Your task to perform on an android device: Open settings on Google Maps Image 0: 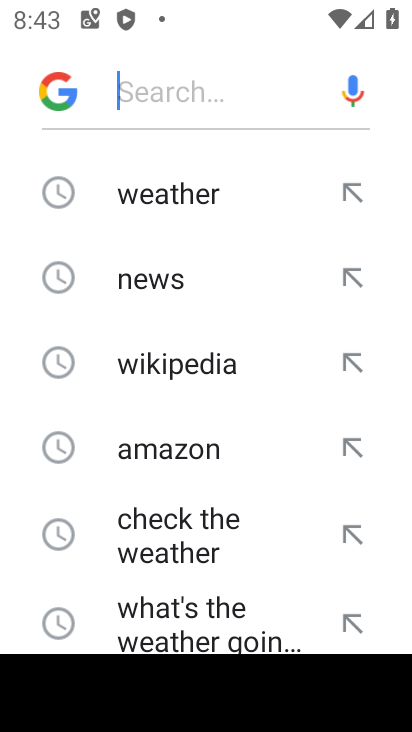
Step 0: press home button
Your task to perform on an android device: Open settings on Google Maps Image 1: 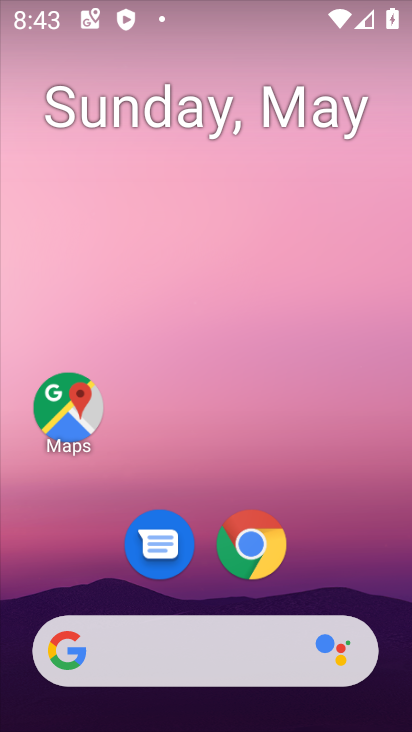
Step 1: drag from (340, 589) to (412, 330)
Your task to perform on an android device: Open settings on Google Maps Image 2: 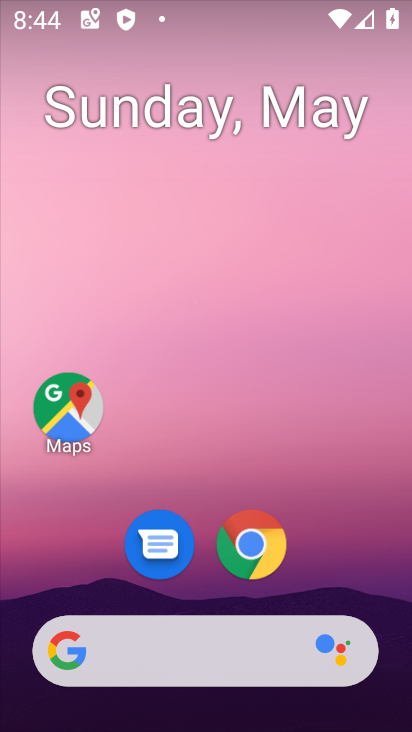
Step 2: drag from (346, 506) to (318, 51)
Your task to perform on an android device: Open settings on Google Maps Image 3: 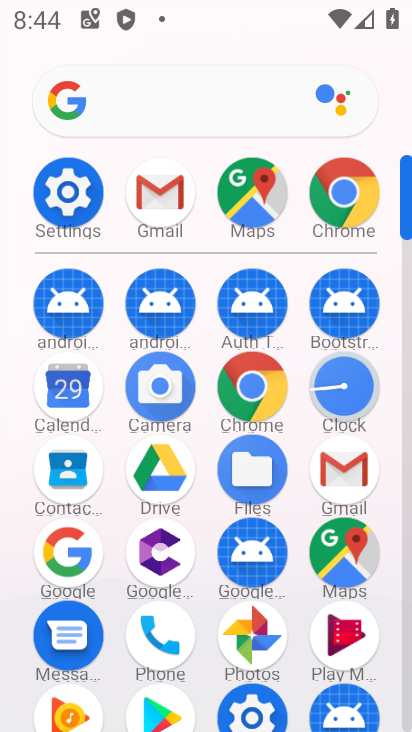
Step 3: click (256, 198)
Your task to perform on an android device: Open settings on Google Maps Image 4: 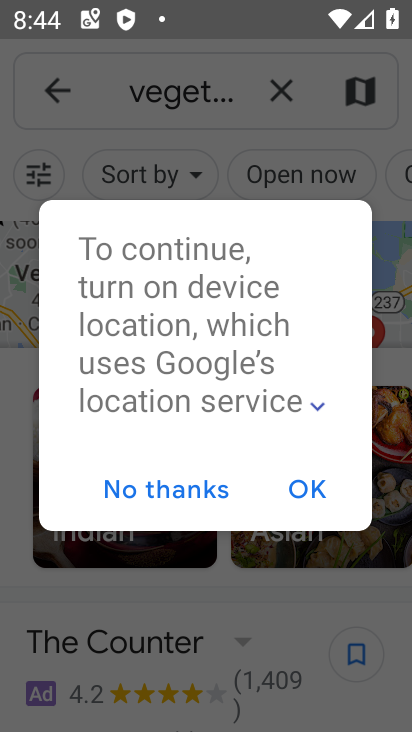
Step 4: click (51, 94)
Your task to perform on an android device: Open settings on Google Maps Image 5: 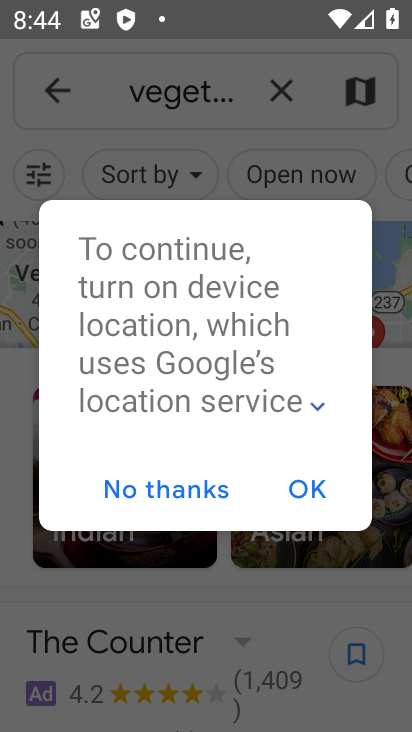
Step 5: click (209, 526)
Your task to perform on an android device: Open settings on Google Maps Image 6: 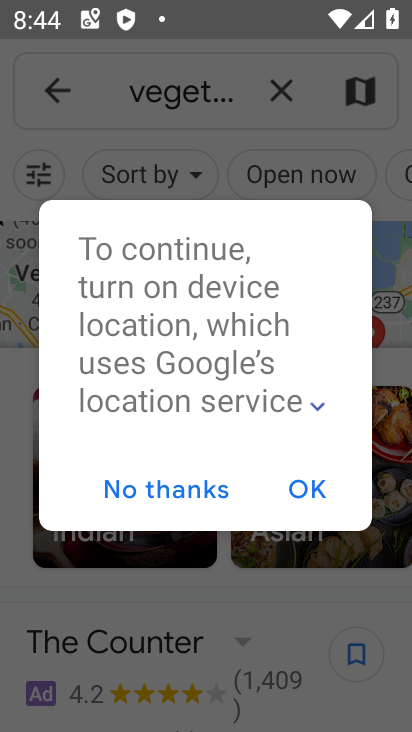
Step 6: click (190, 494)
Your task to perform on an android device: Open settings on Google Maps Image 7: 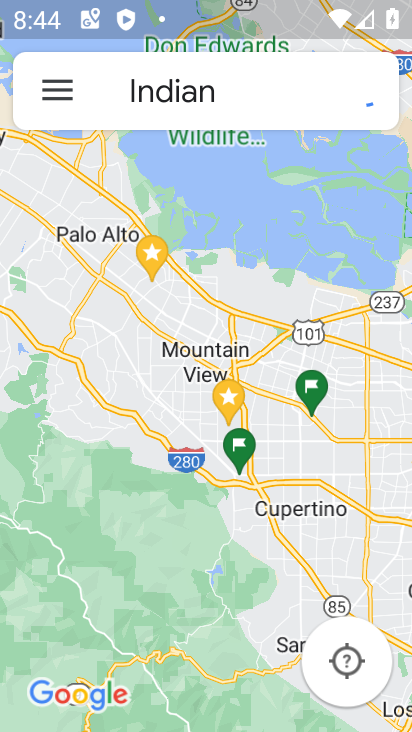
Step 7: click (61, 100)
Your task to perform on an android device: Open settings on Google Maps Image 8: 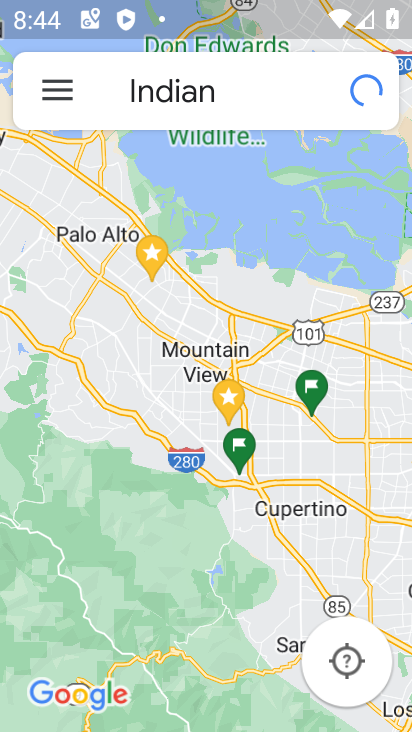
Step 8: click (61, 97)
Your task to perform on an android device: Open settings on Google Maps Image 9: 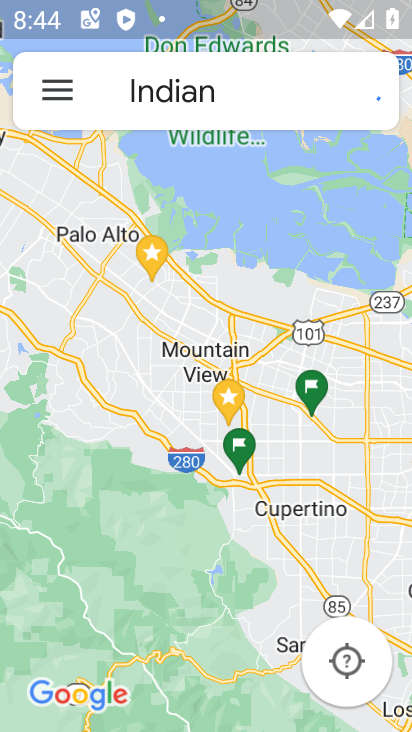
Step 9: click (52, 92)
Your task to perform on an android device: Open settings on Google Maps Image 10: 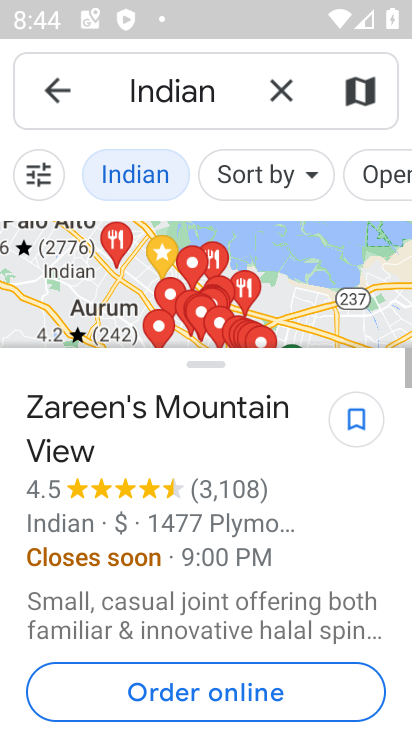
Step 10: click (70, 107)
Your task to perform on an android device: Open settings on Google Maps Image 11: 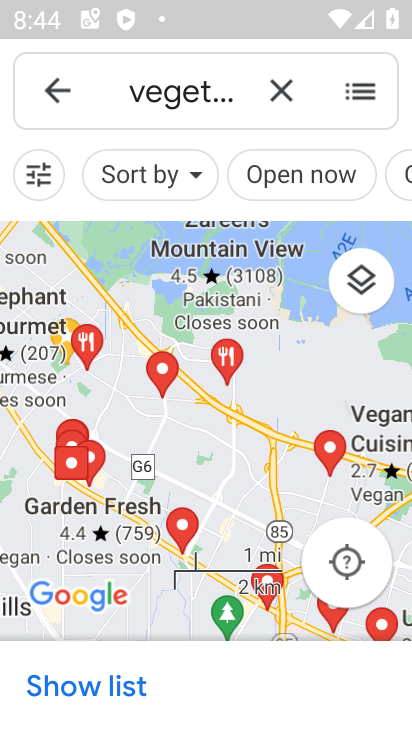
Step 11: click (64, 90)
Your task to perform on an android device: Open settings on Google Maps Image 12: 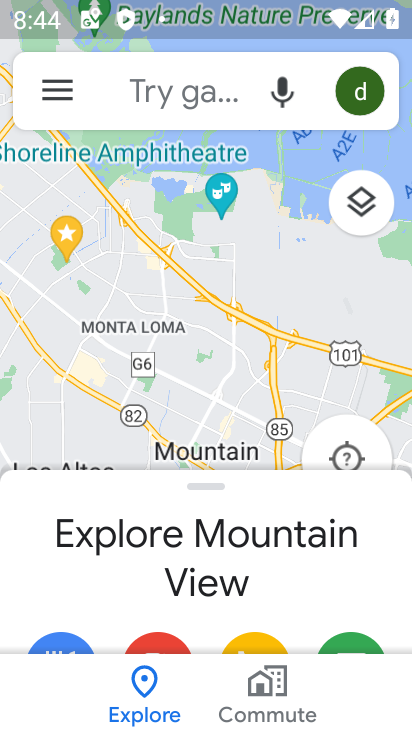
Step 12: click (64, 90)
Your task to perform on an android device: Open settings on Google Maps Image 13: 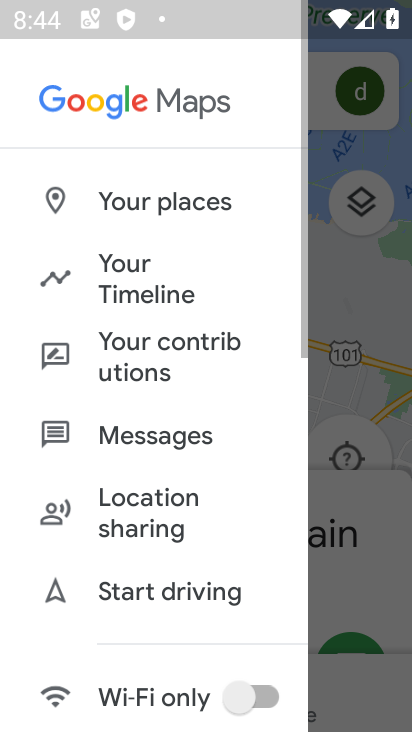
Step 13: drag from (171, 570) to (224, 181)
Your task to perform on an android device: Open settings on Google Maps Image 14: 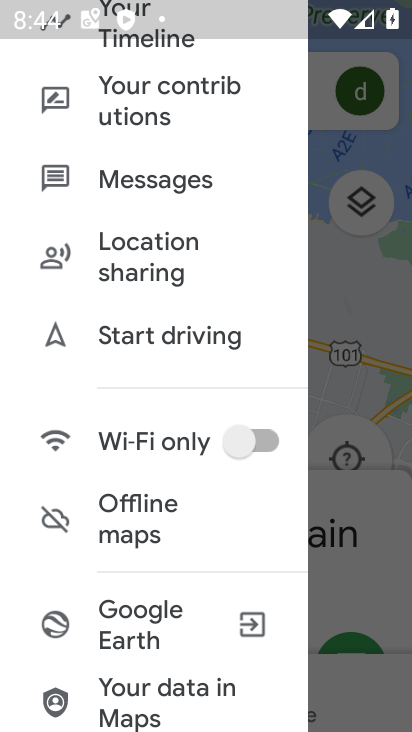
Step 14: drag from (195, 601) to (237, 256)
Your task to perform on an android device: Open settings on Google Maps Image 15: 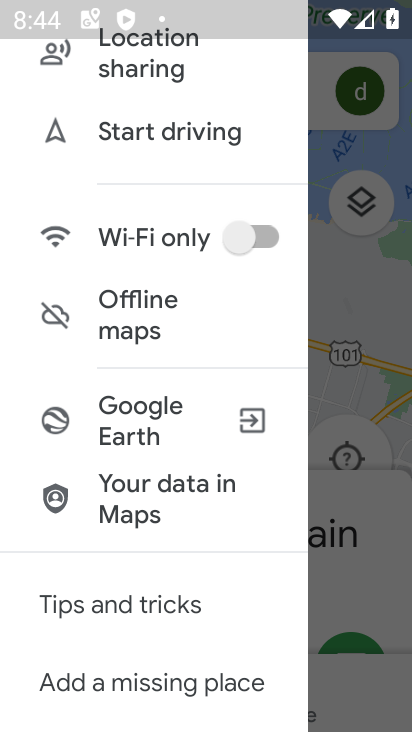
Step 15: drag from (171, 592) to (218, 236)
Your task to perform on an android device: Open settings on Google Maps Image 16: 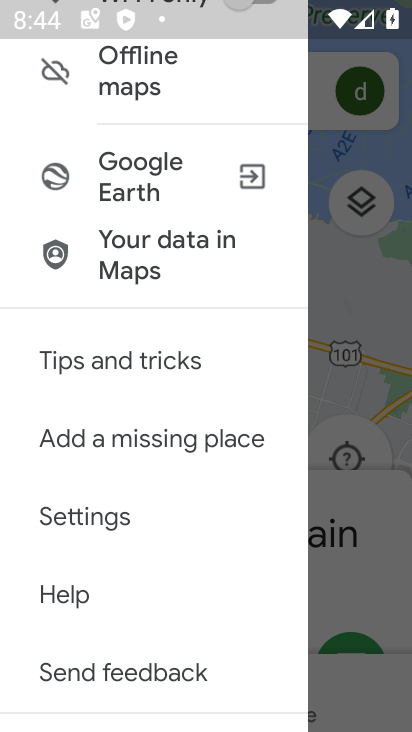
Step 16: click (110, 542)
Your task to perform on an android device: Open settings on Google Maps Image 17: 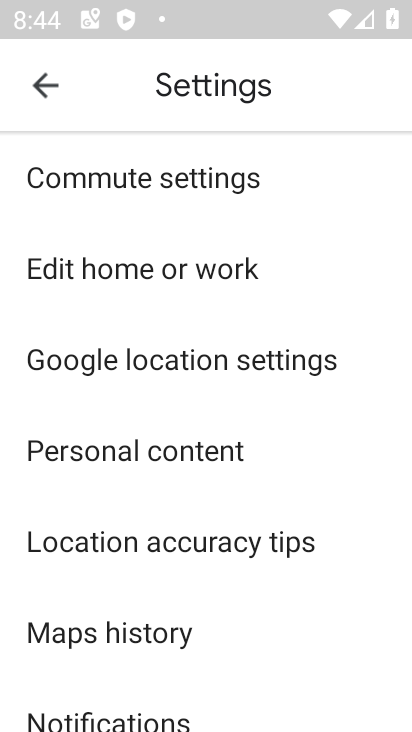
Step 17: task complete